Your task to perform on an android device: all mails in gmail Image 0: 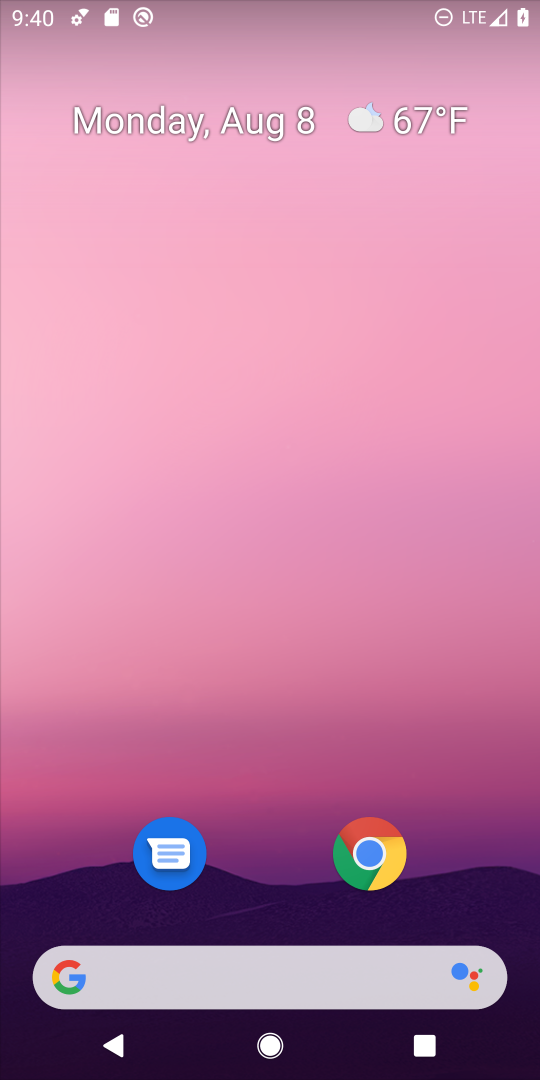
Step 0: drag from (284, 872) to (217, 242)
Your task to perform on an android device: all mails in gmail Image 1: 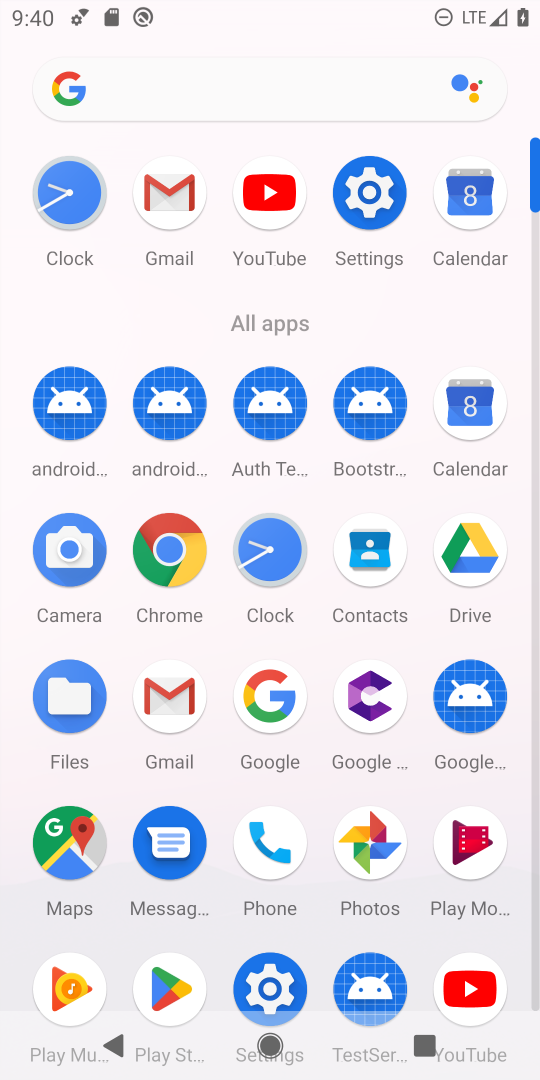
Step 1: click (163, 208)
Your task to perform on an android device: all mails in gmail Image 2: 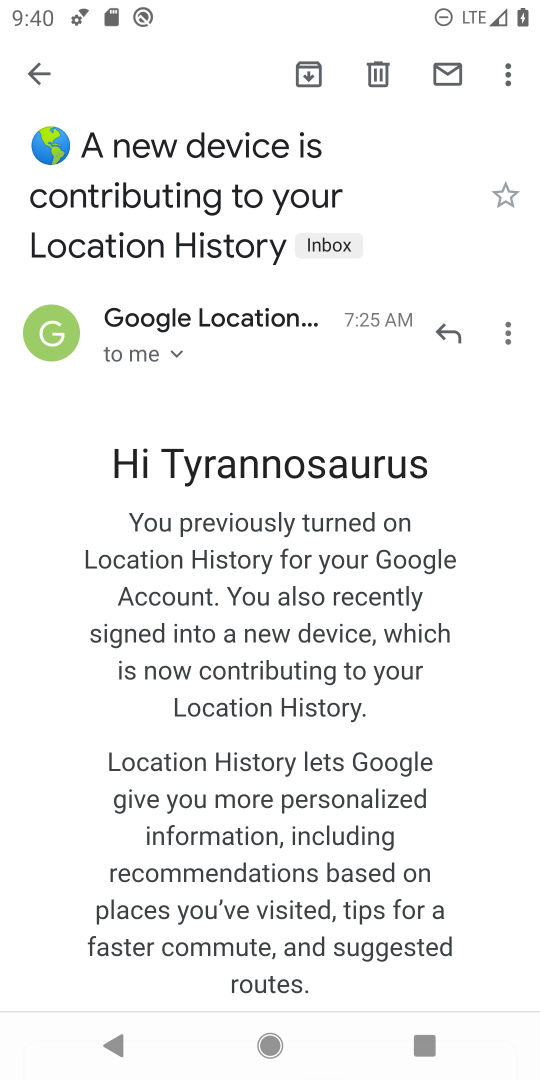
Step 2: drag from (199, 203) to (160, 129)
Your task to perform on an android device: all mails in gmail Image 3: 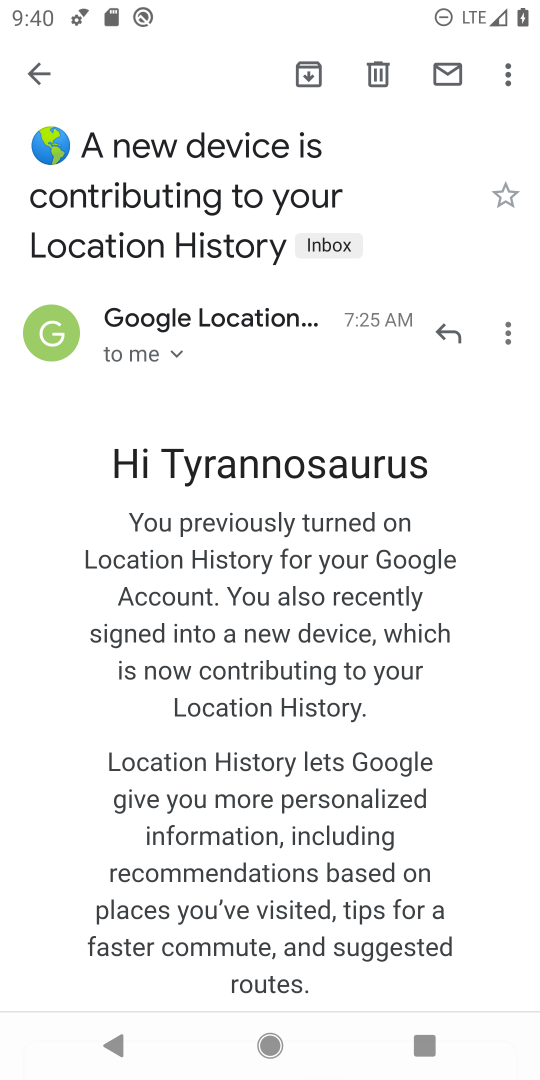
Step 3: click (285, 1039)
Your task to perform on an android device: all mails in gmail Image 4: 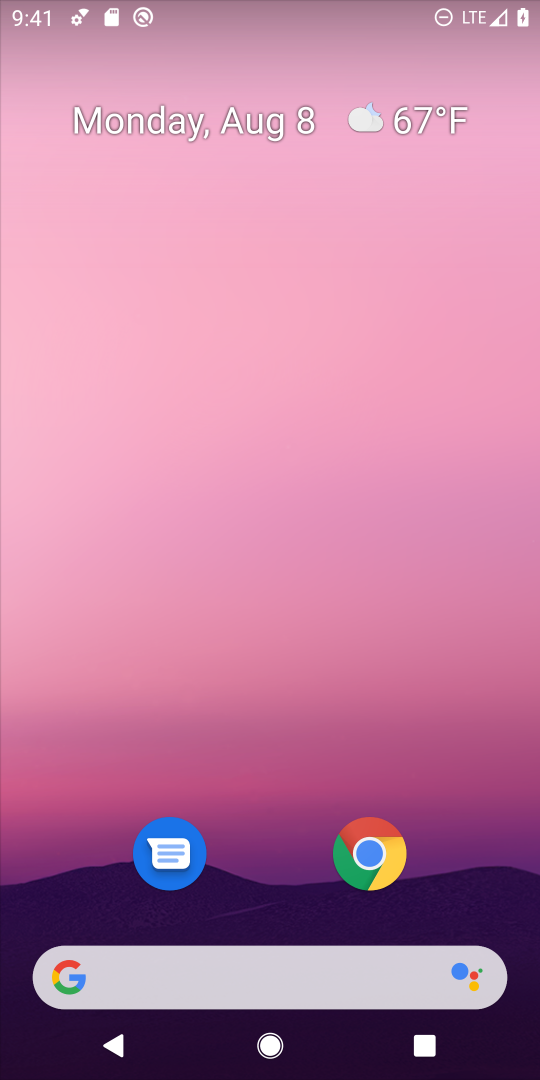
Step 4: click (433, 1050)
Your task to perform on an android device: all mails in gmail Image 5: 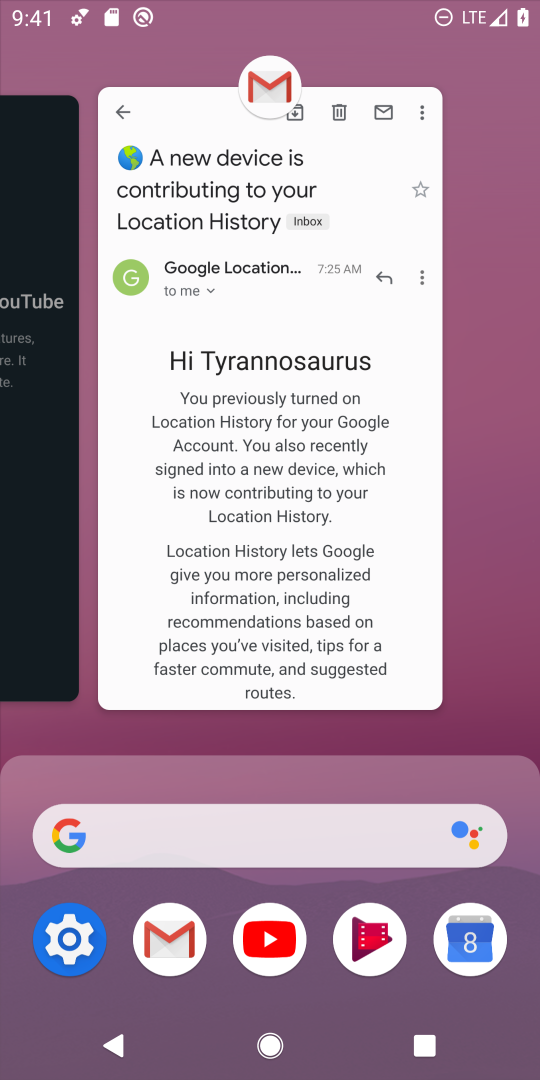
Step 5: click (310, 560)
Your task to perform on an android device: all mails in gmail Image 6: 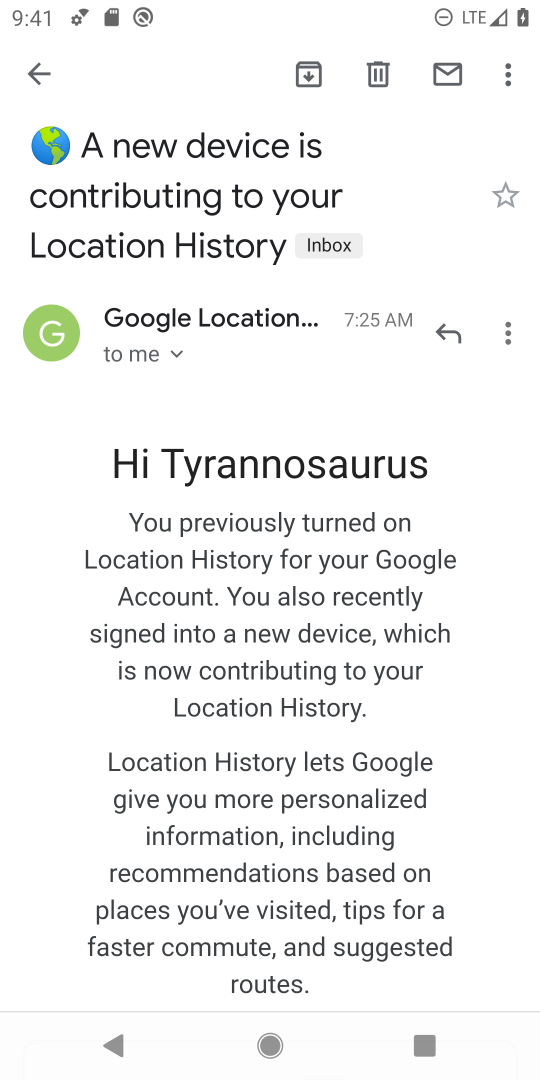
Step 6: click (32, 68)
Your task to perform on an android device: all mails in gmail Image 7: 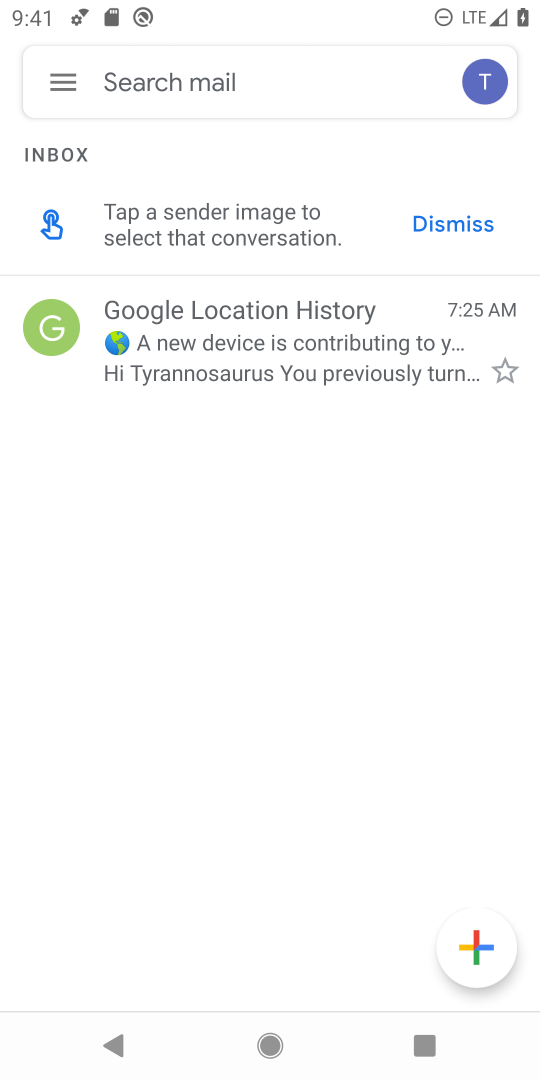
Step 7: click (66, 89)
Your task to perform on an android device: all mails in gmail Image 8: 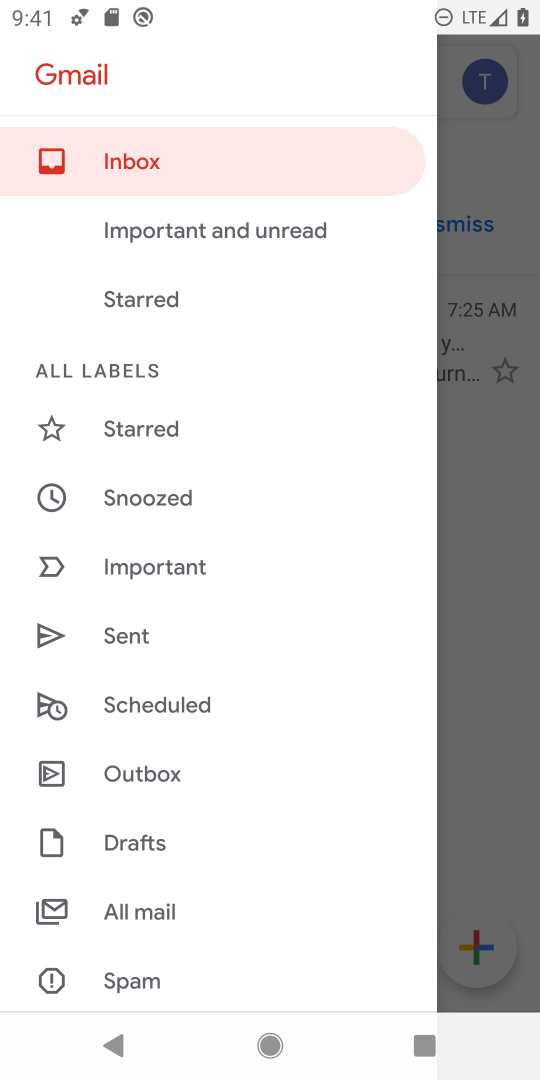
Step 8: task complete